Your task to perform on an android device: Open calendar and show me the second week of next month Image 0: 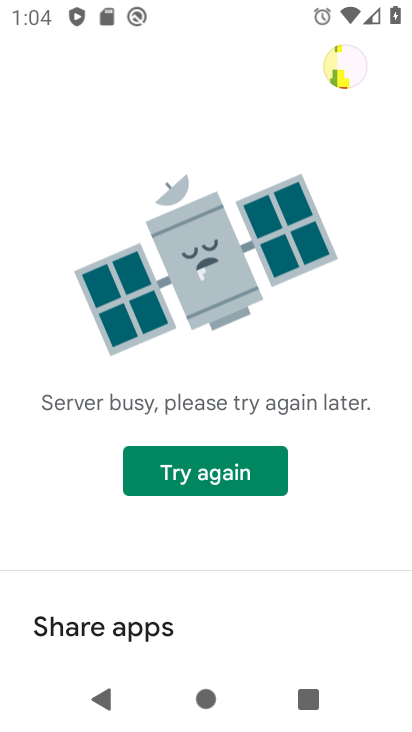
Step 0: press home button
Your task to perform on an android device: Open calendar and show me the second week of next month Image 1: 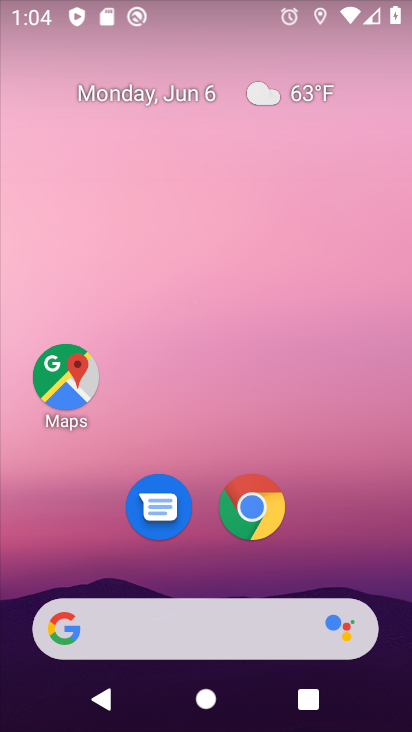
Step 1: drag from (206, 449) to (188, 12)
Your task to perform on an android device: Open calendar and show me the second week of next month Image 2: 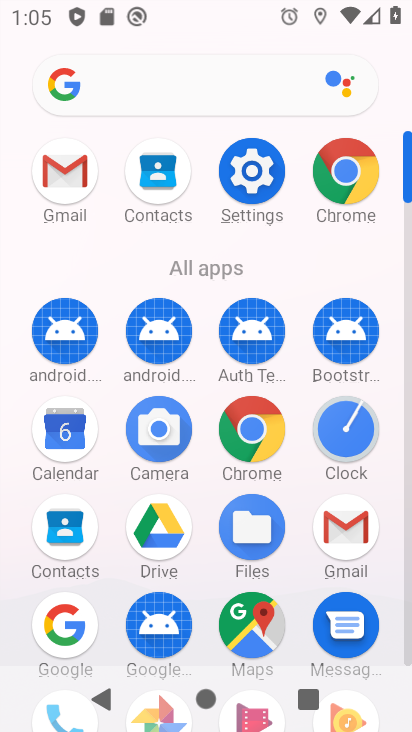
Step 2: click (67, 440)
Your task to perform on an android device: Open calendar and show me the second week of next month Image 3: 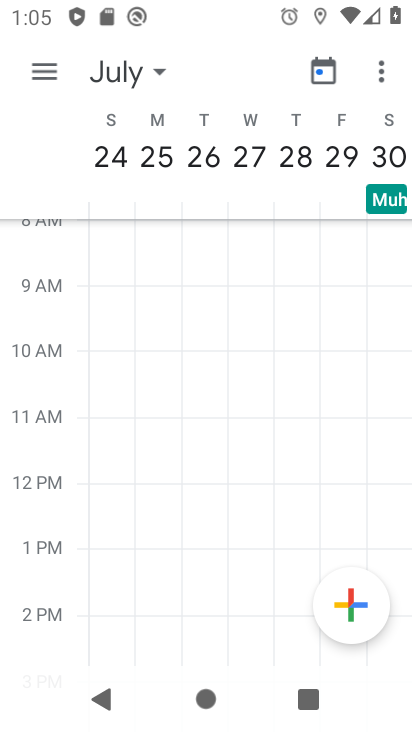
Step 3: task complete